Your task to perform on an android device: turn pop-ups off in chrome Image 0: 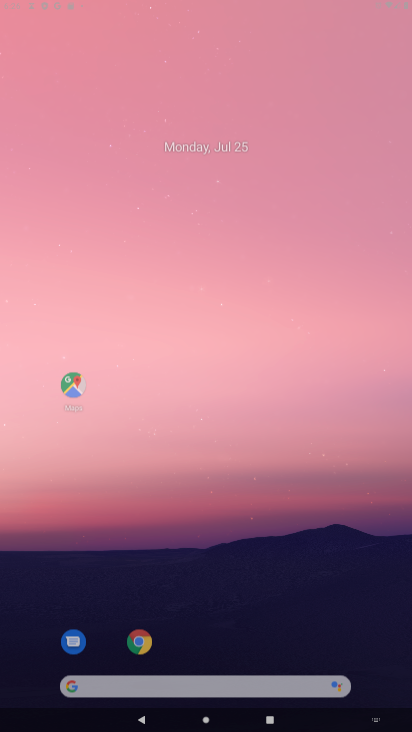
Step 0: click (276, 676)
Your task to perform on an android device: turn pop-ups off in chrome Image 1: 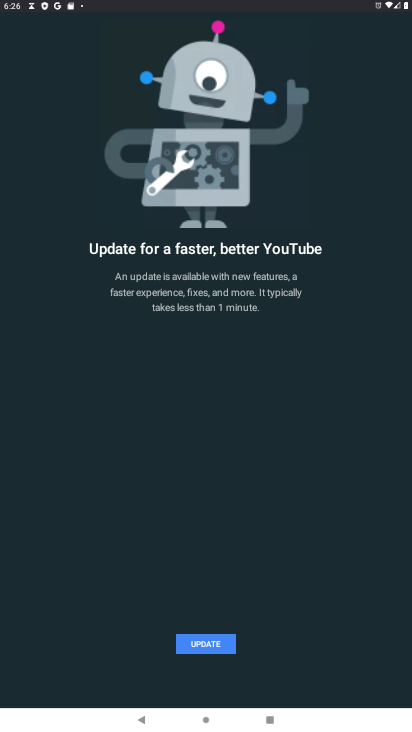
Step 1: press home button
Your task to perform on an android device: turn pop-ups off in chrome Image 2: 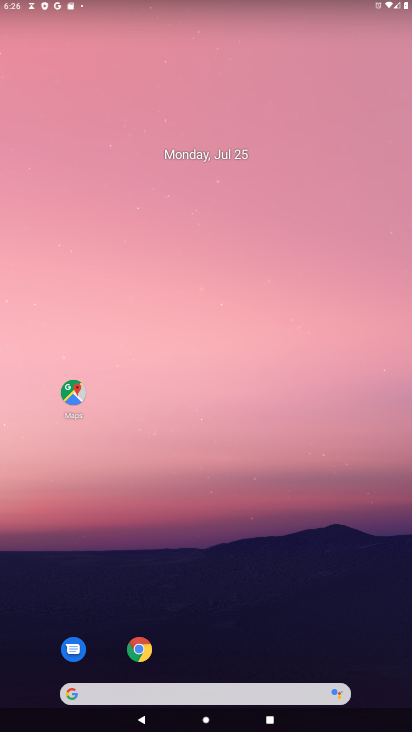
Step 2: drag from (232, 676) to (321, 101)
Your task to perform on an android device: turn pop-ups off in chrome Image 3: 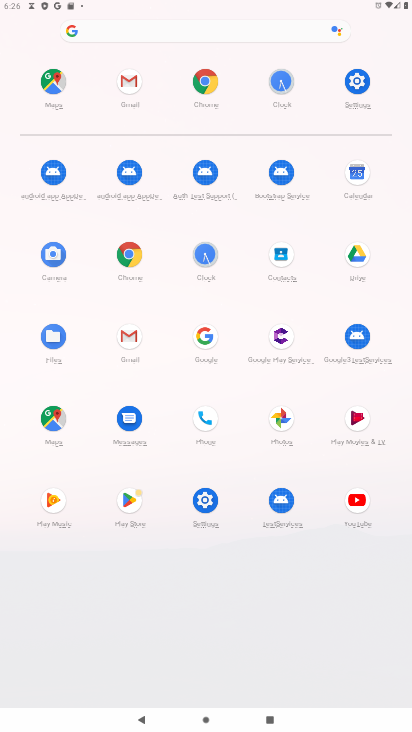
Step 3: click (130, 253)
Your task to perform on an android device: turn pop-ups off in chrome Image 4: 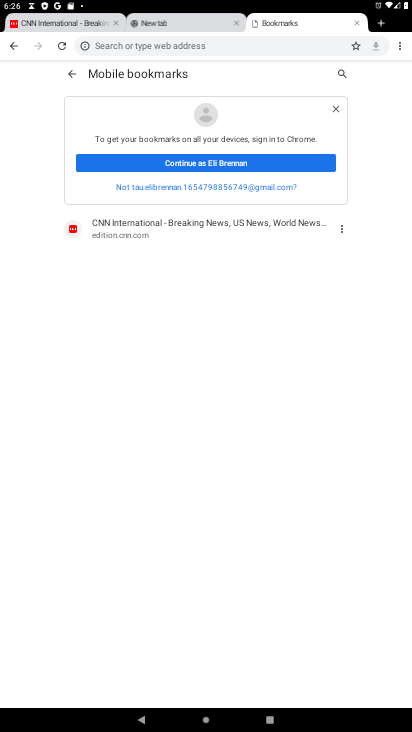
Step 4: drag from (401, 40) to (322, 214)
Your task to perform on an android device: turn pop-ups off in chrome Image 5: 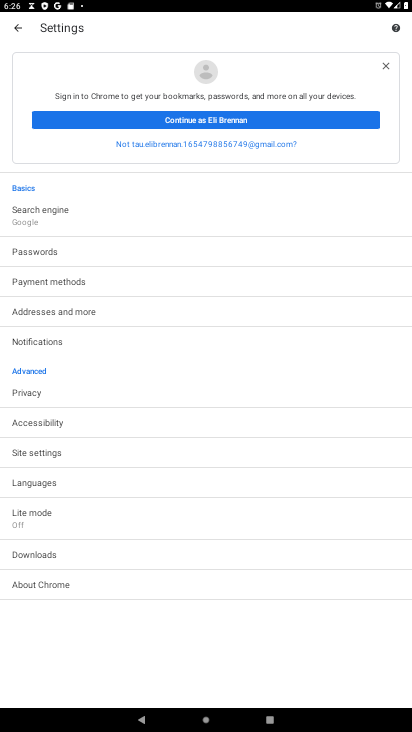
Step 5: click (50, 453)
Your task to perform on an android device: turn pop-ups off in chrome Image 6: 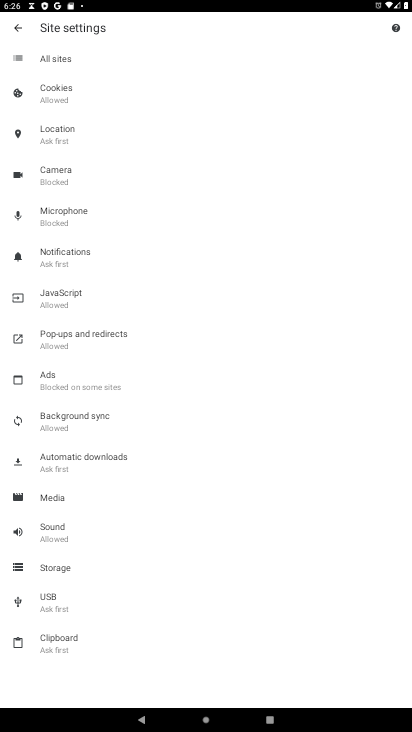
Step 6: click (92, 342)
Your task to perform on an android device: turn pop-ups off in chrome Image 7: 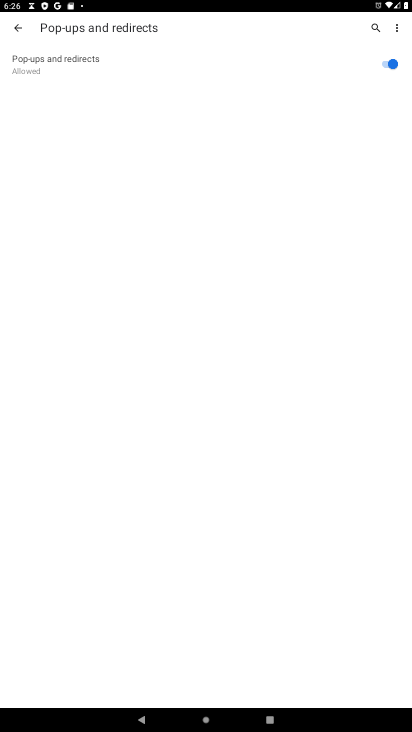
Step 7: click (392, 65)
Your task to perform on an android device: turn pop-ups off in chrome Image 8: 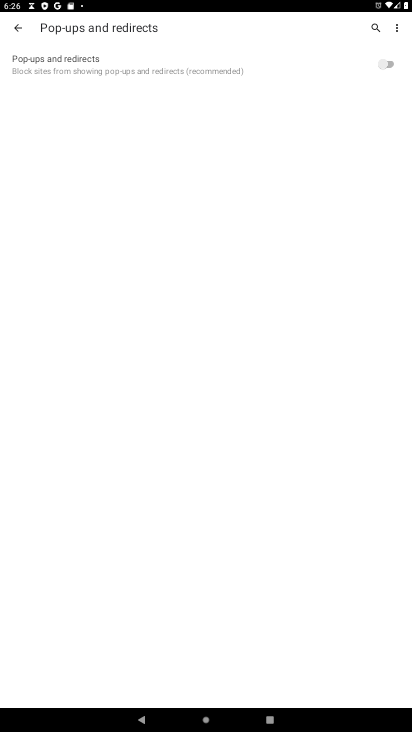
Step 8: task complete